Your task to perform on an android device: Go to display settings Image 0: 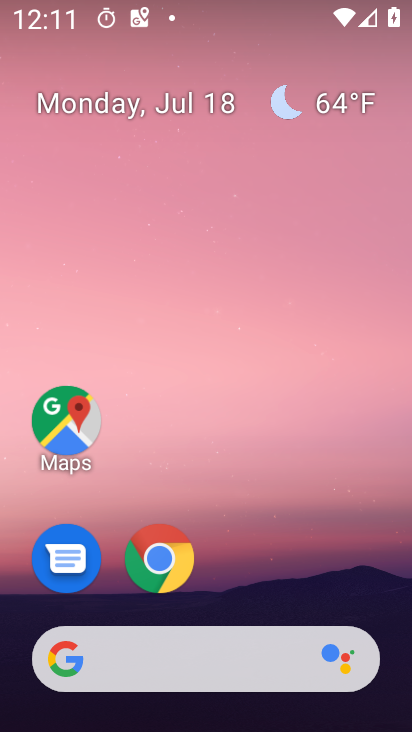
Step 0: drag from (382, 579) to (374, 181)
Your task to perform on an android device: Go to display settings Image 1: 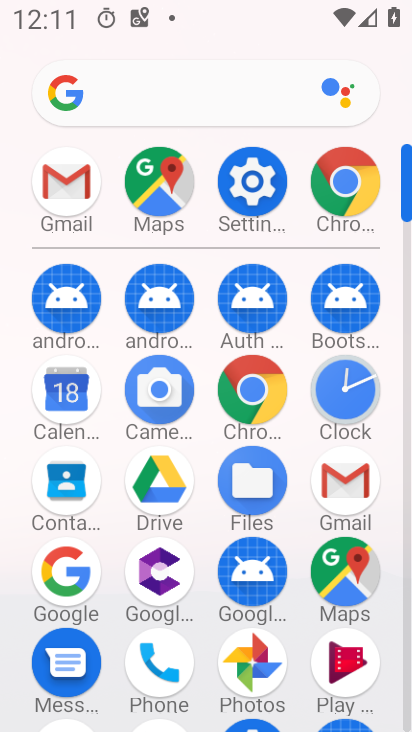
Step 1: click (264, 173)
Your task to perform on an android device: Go to display settings Image 2: 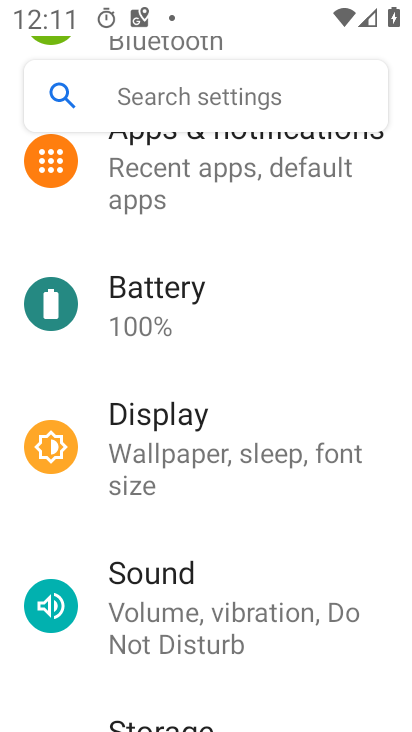
Step 2: drag from (365, 234) to (369, 270)
Your task to perform on an android device: Go to display settings Image 3: 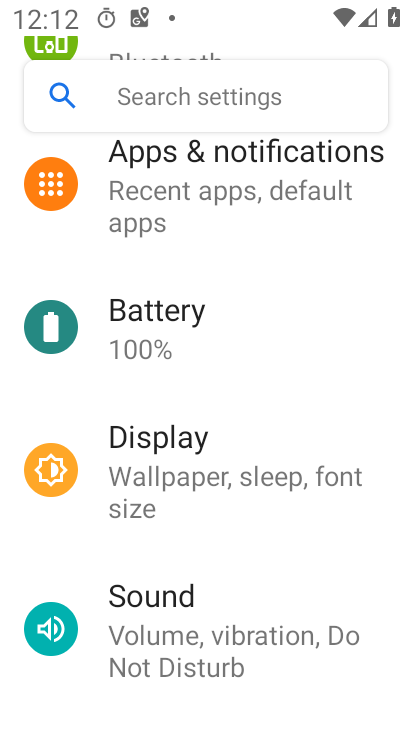
Step 3: drag from (357, 564) to (359, 470)
Your task to perform on an android device: Go to display settings Image 4: 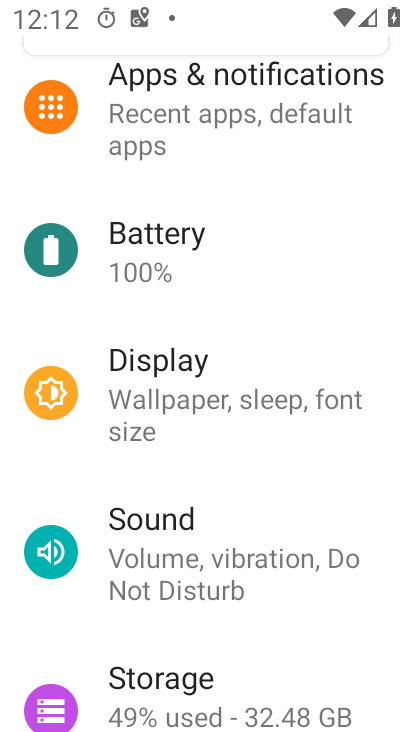
Step 4: drag from (362, 596) to (358, 506)
Your task to perform on an android device: Go to display settings Image 5: 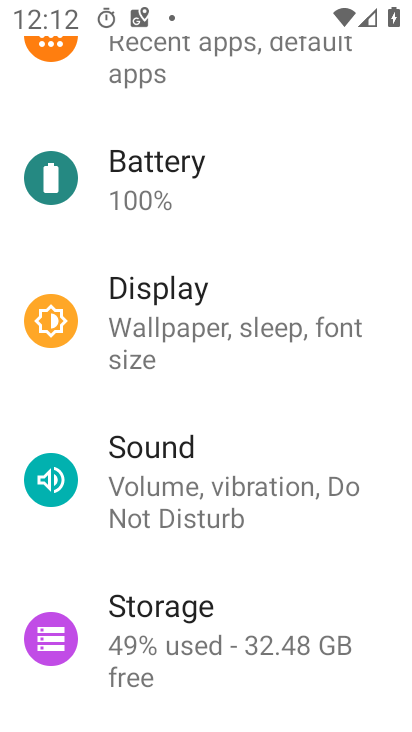
Step 5: drag from (369, 614) to (368, 540)
Your task to perform on an android device: Go to display settings Image 6: 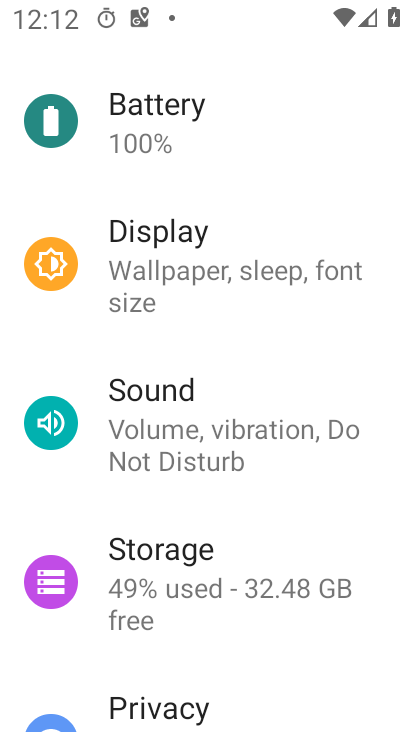
Step 6: drag from (365, 335) to (375, 435)
Your task to perform on an android device: Go to display settings Image 7: 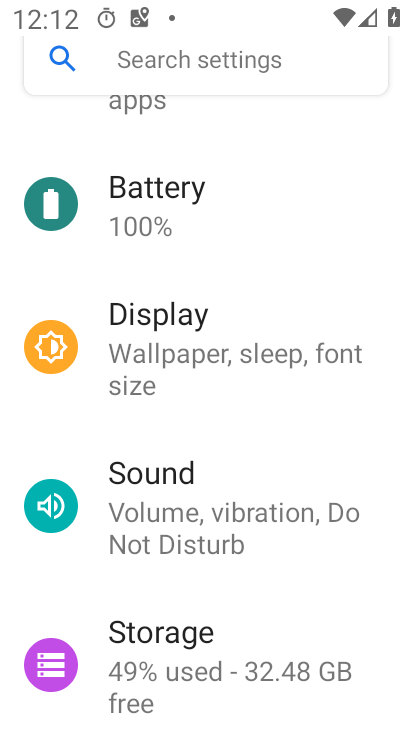
Step 7: click (355, 291)
Your task to perform on an android device: Go to display settings Image 8: 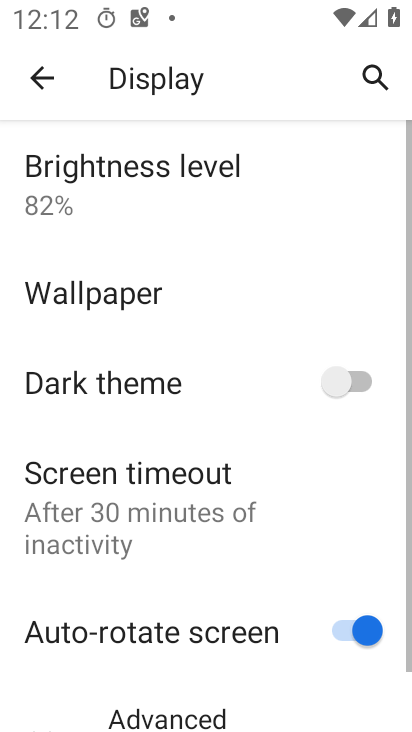
Step 8: drag from (385, 583) to (385, 450)
Your task to perform on an android device: Go to display settings Image 9: 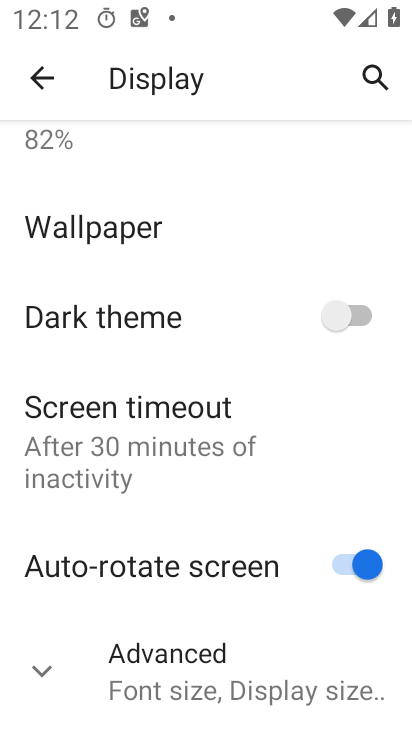
Step 9: click (258, 646)
Your task to perform on an android device: Go to display settings Image 10: 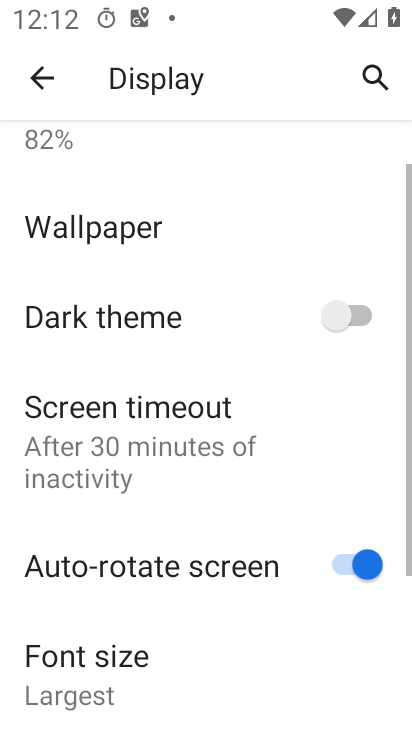
Step 10: task complete